Your task to perform on an android device: remove spam from my inbox in the gmail app Image 0: 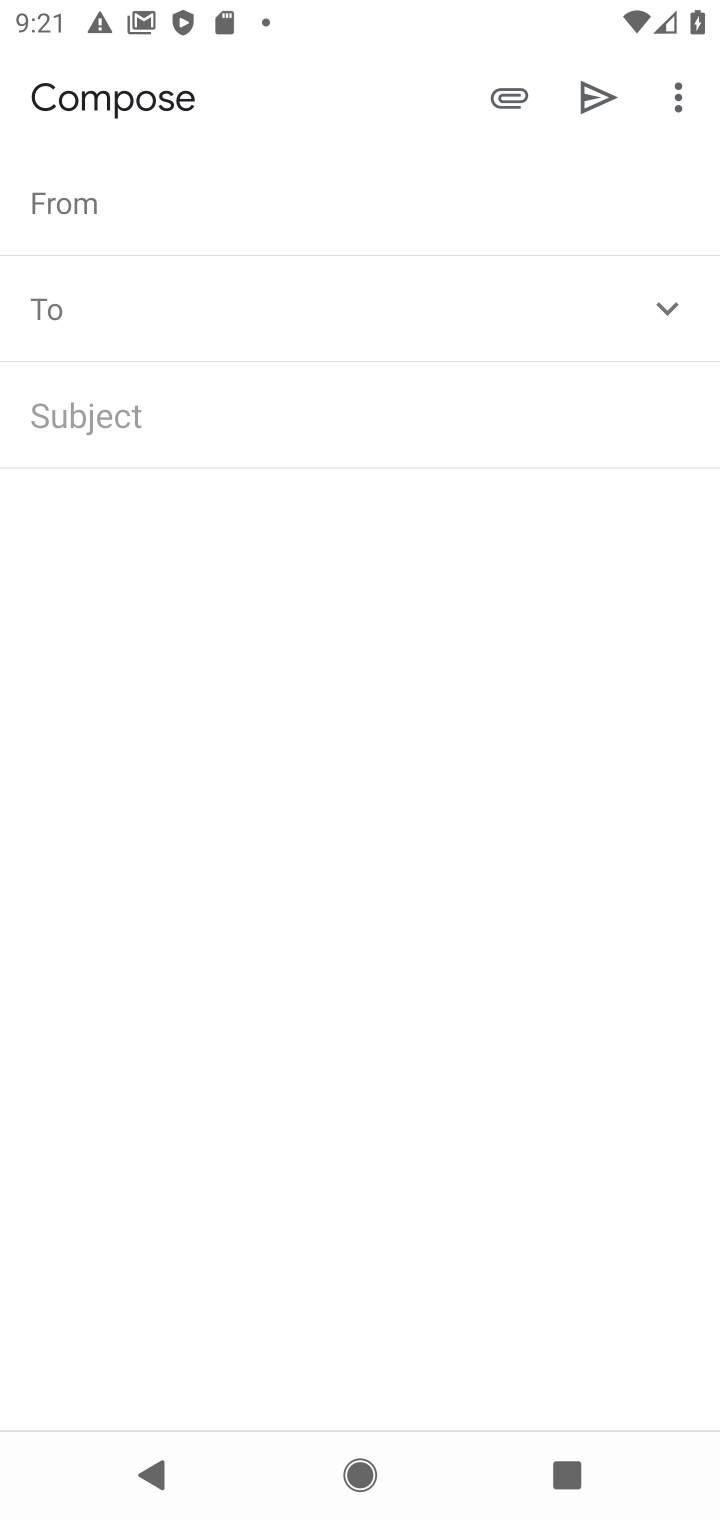
Step 0: press home button
Your task to perform on an android device: remove spam from my inbox in the gmail app Image 1: 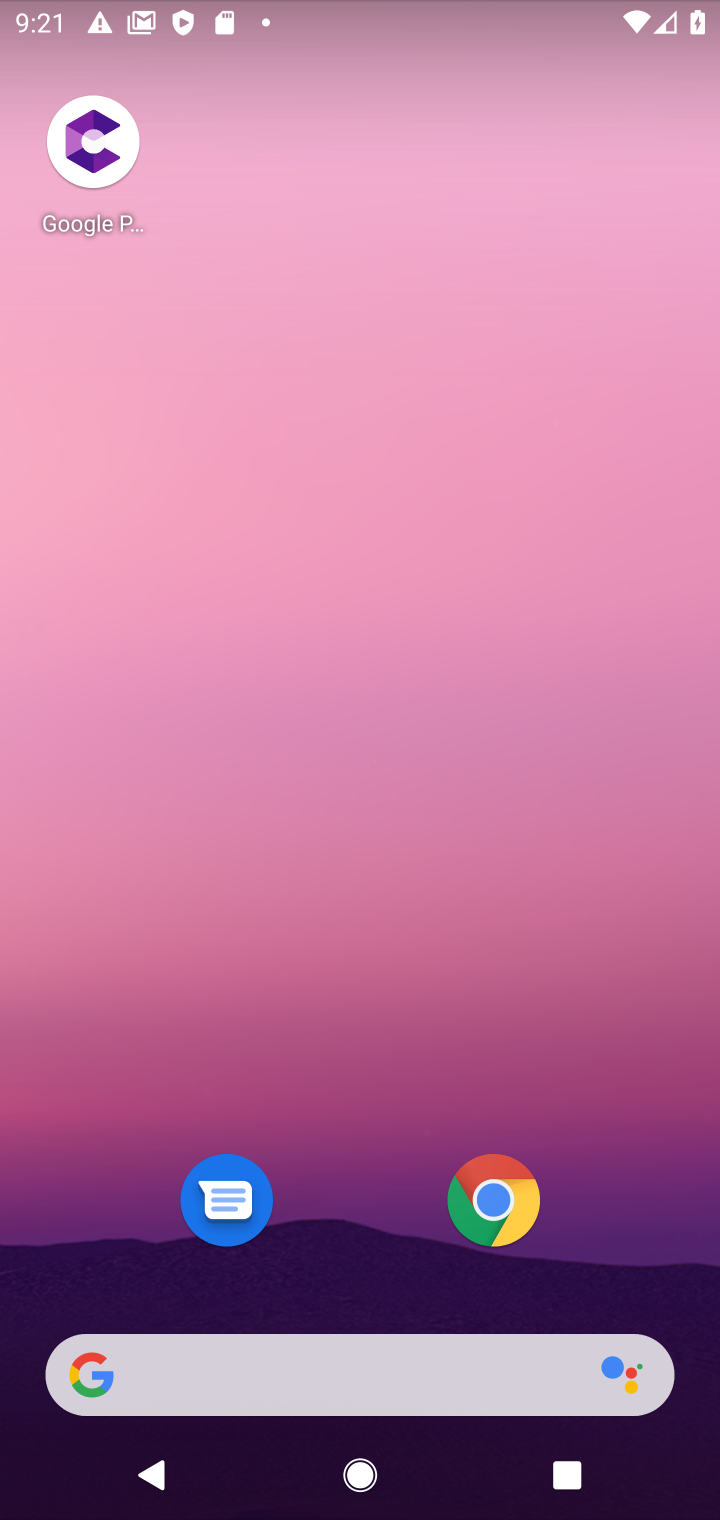
Step 1: drag from (345, 1200) to (358, 338)
Your task to perform on an android device: remove spam from my inbox in the gmail app Image 2: 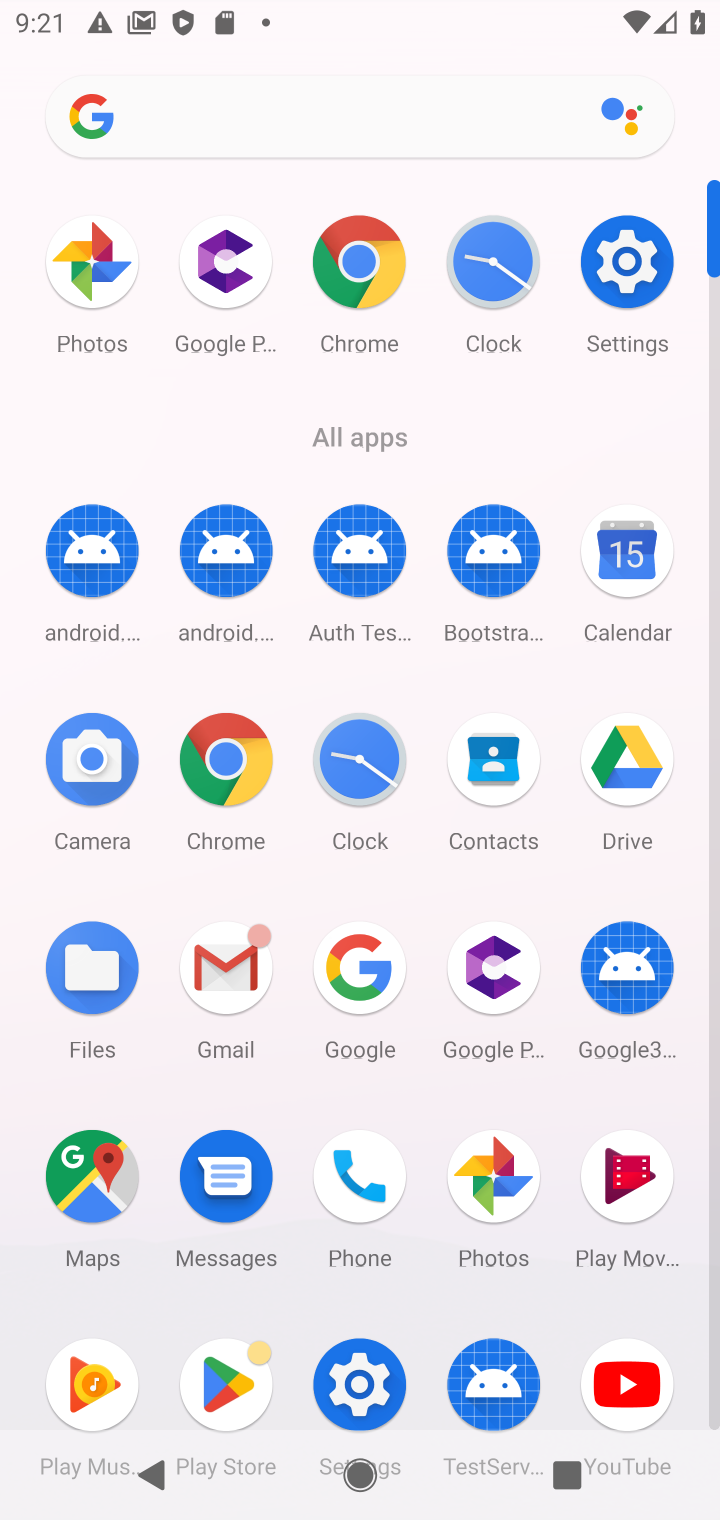
Step 2: click (200, 977)
Your task to perform on an android device: remove spam from my inbox in the gmail app Image 3: 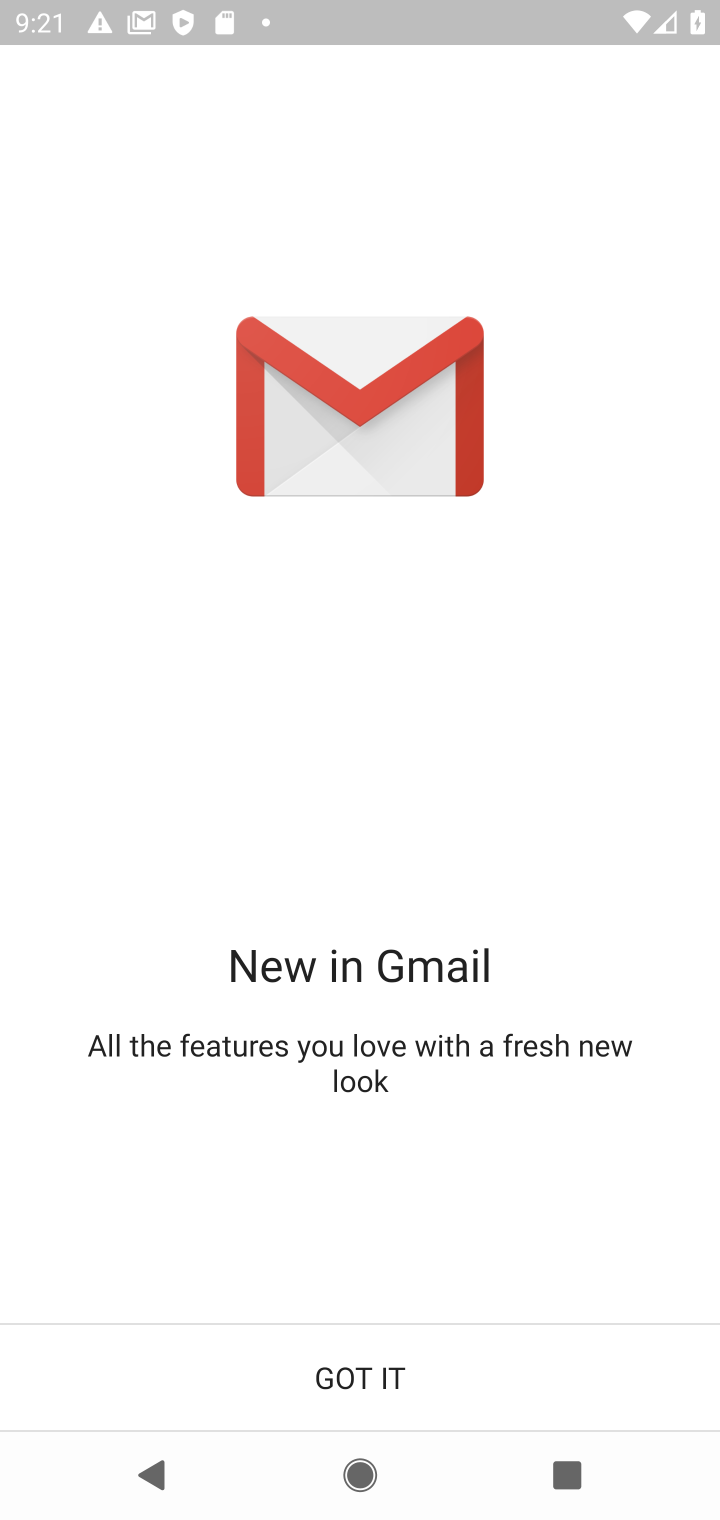
Step 3: click (460, 1356)
Your task to perform on an android device: remove spam from my inbox in the gmail app Image 4: 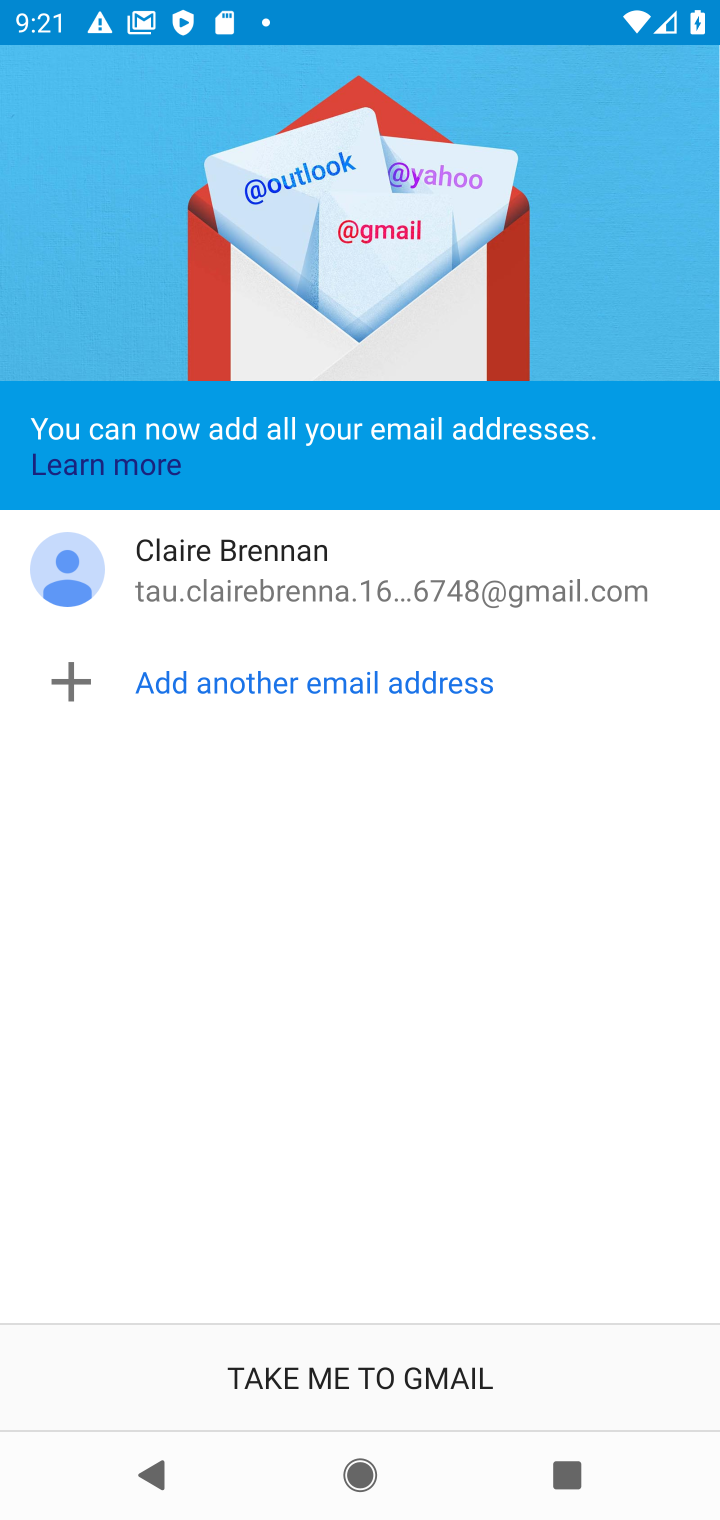
Step 4: click (353, 1350)
Your task to perform on an android device: remove spam from my inbox in the gmail app Image 5: 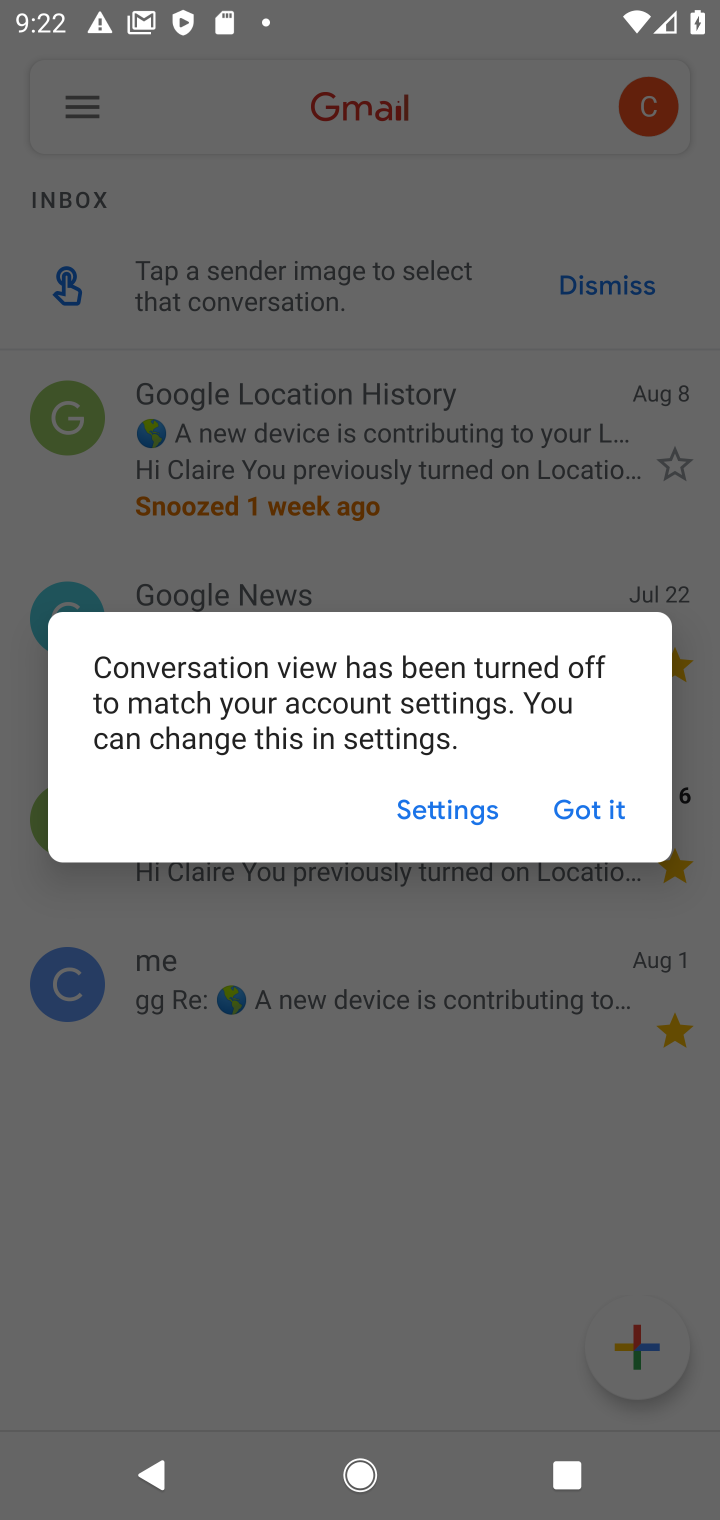
Step 5: click (581, 807)
Your task to perform on an android device: remove spam from my inbox in the gmail app Image 6: 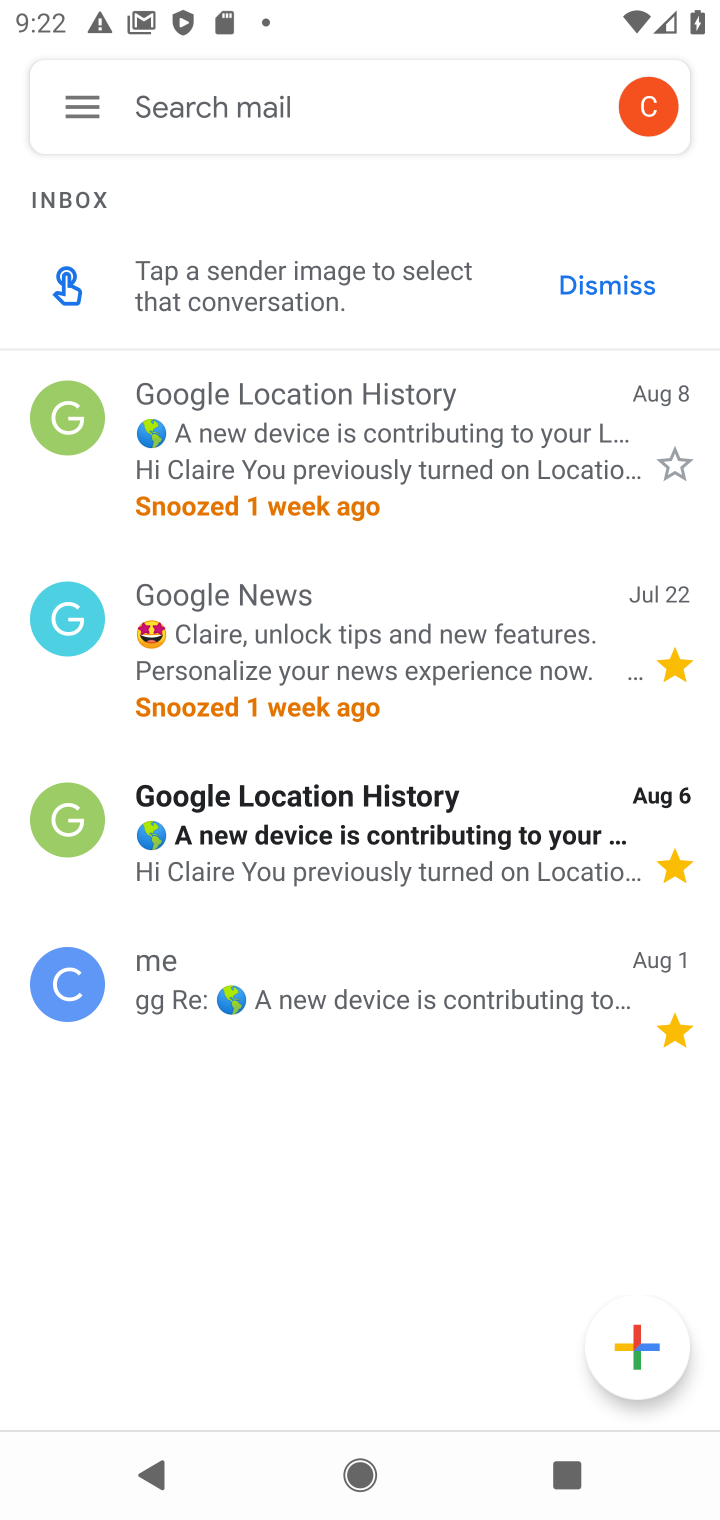
Step 6: click (68, 101)
Your task to perform on an android device: remove spam from my inbox in the gmail app Image 7: 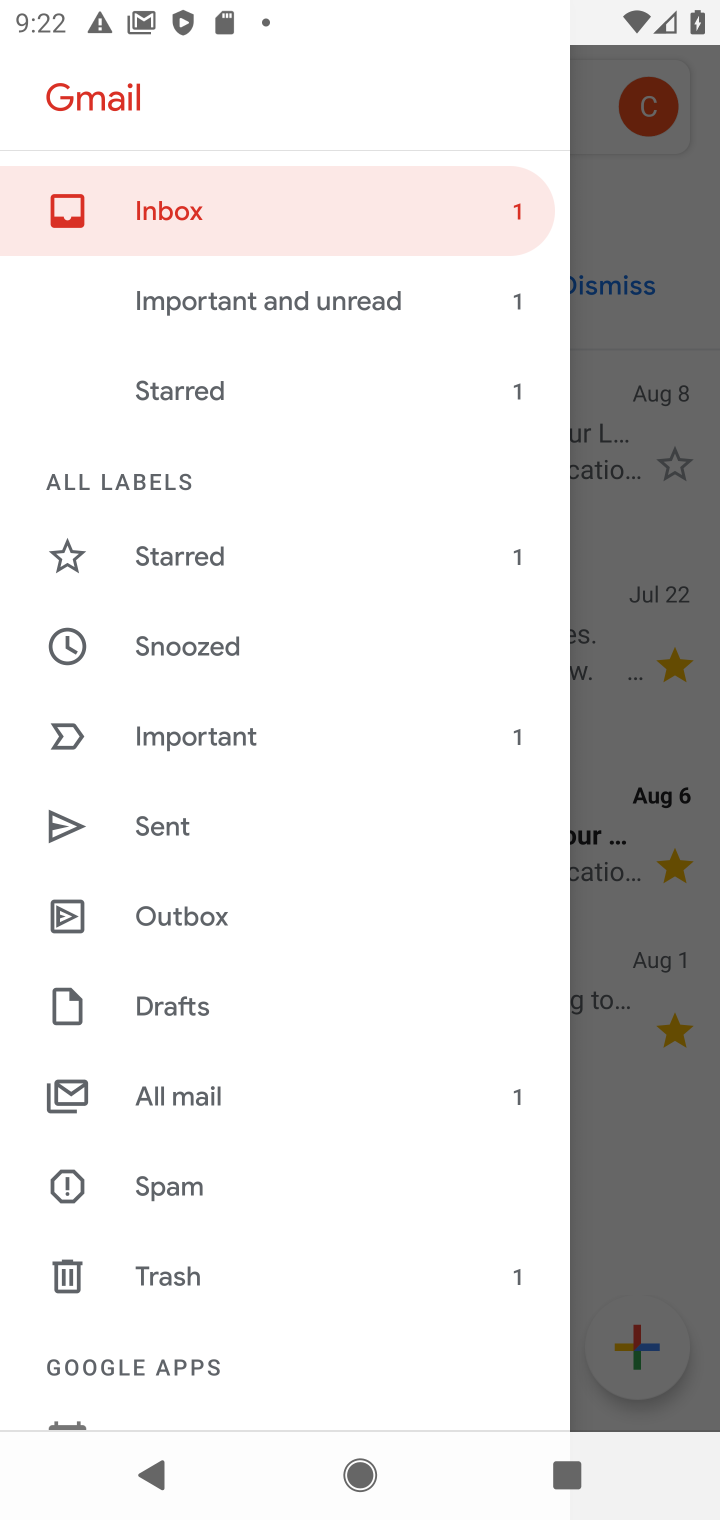
Step 7: click (208, 1200)
Your task to perform on an android device: remove spam from my inbox in the gmail app Image 8: 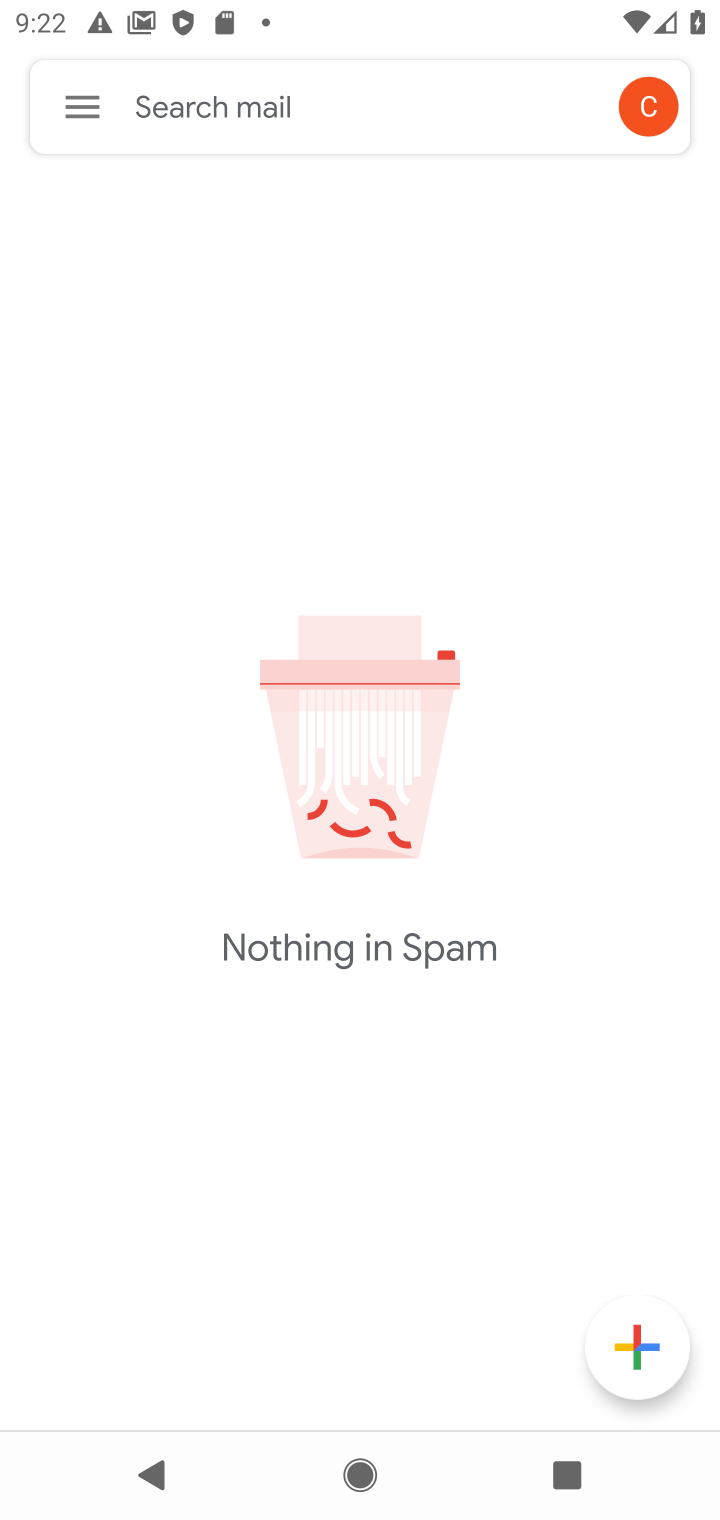
Step 8: task complete